Your task to perform on an android device: Open CNN.com Image 0: 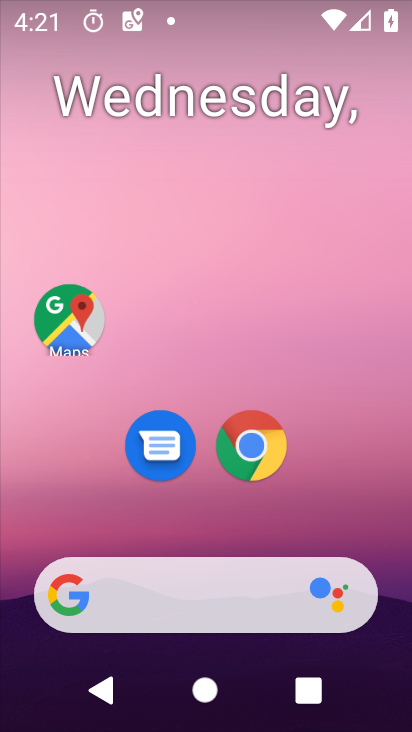
Step 0: drag from (186, 515) to (219, 54)
Your task to perform on an android device: Open CNN.com Image 1: 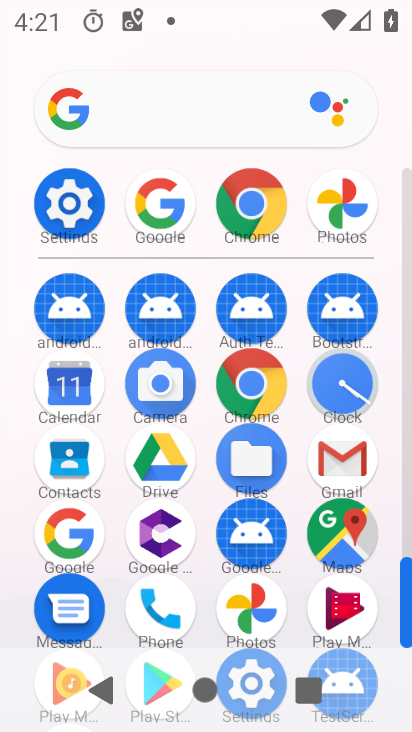
Step 1: click (72, 535)
Your task to perform on an android device: Open CNN.com Image 2: 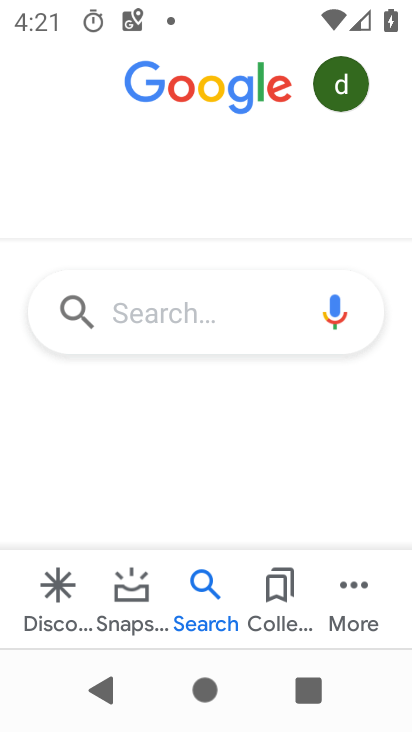
Step 2: click (175, 307)
Your task to perform on an android device: Open CNN.com Image 3: 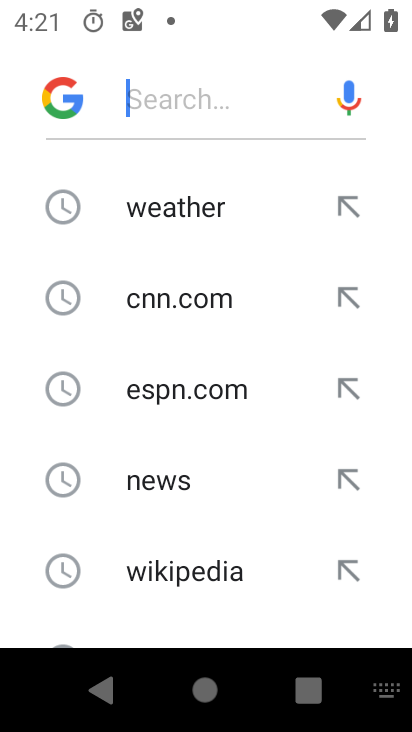
Step 3: click (185, 296)
Your task to perform on an android device: Open CNN.com Image 4: 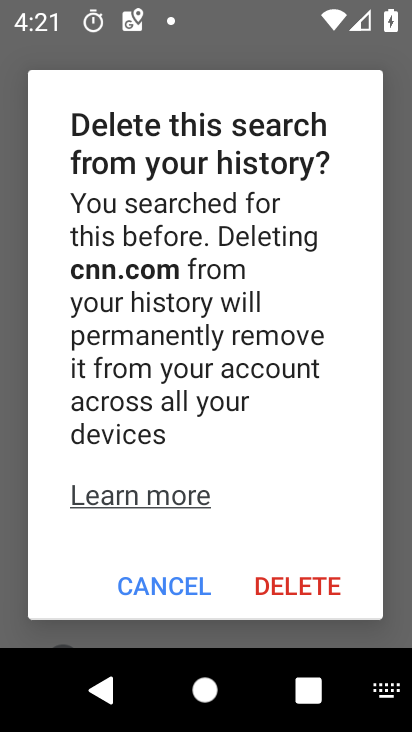
Step 4: click (188, 583)
Your task to perform on an android device: Open CNN.com Image 5: 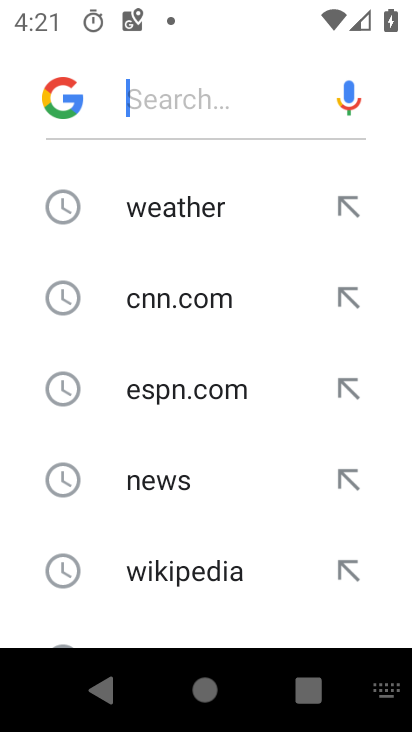
Step 5: click (230, 297)
Your task to perform on an android device: Open CNN.com Image 6: 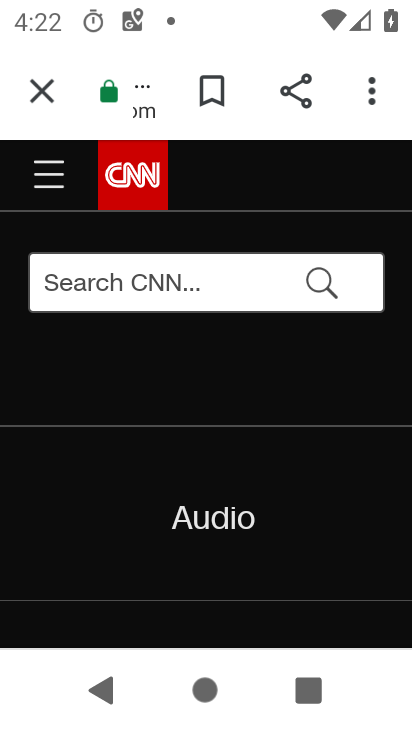
Step 6: task complete